Your task to perform on an android device: Go to eBay Image 0: 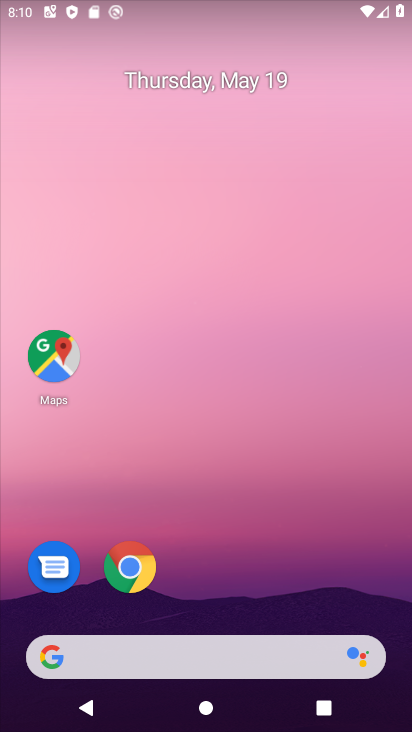
Step 0: click (131, 574)
Your task to perform on an android device: Go to eBay Image 1: 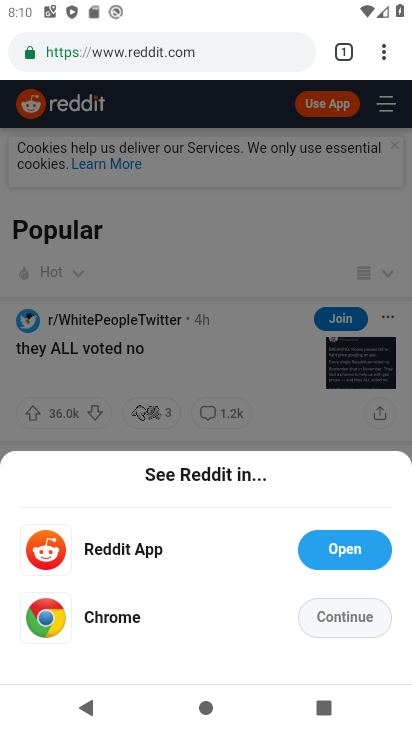
Step 1: click (144, 55)
Your task to perform on an android device: Go to eBay Image 2: 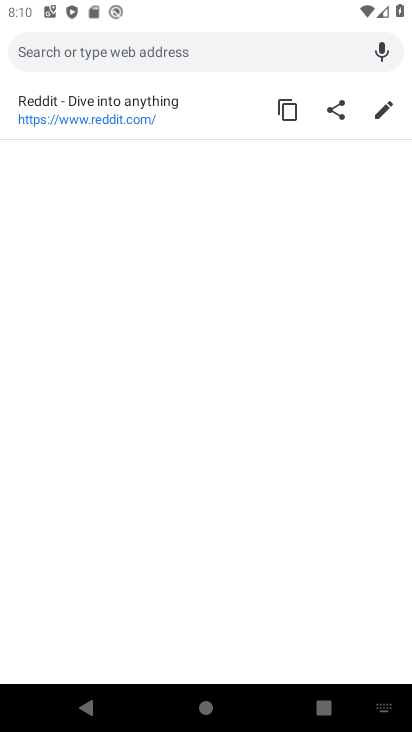
Step 2: type "eBay"
Your task to perform on an android device: Go to eBay Image 3: 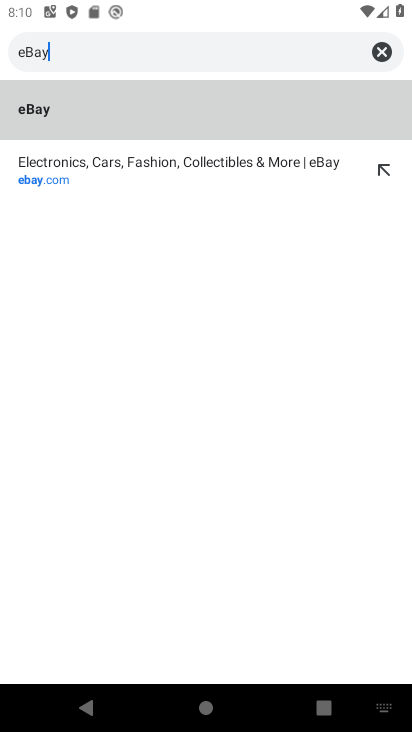
Step 3: click (152, 128)
Your task to perform on an android device: Go to eBay Image 4: 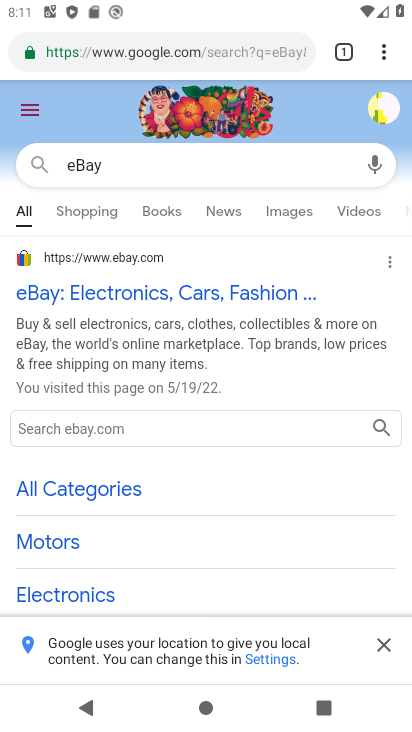
Step 4: task complete